Your task to perform on an android device: set default search engine in the chrome app Image 0: 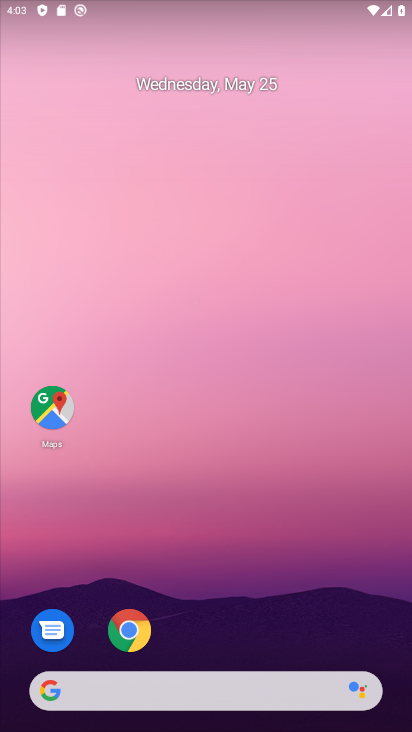
Step 0: click (140, 631)
Your task to perform on an android device: set default search engine in the chrome app Image 1: 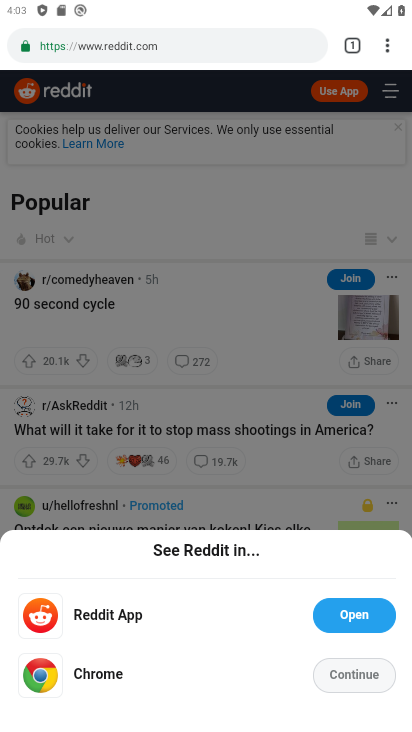
Step 1: drag from (386, 44) to (213, 509)
Your task to perform on an android device: set default search engine in the chrome app Image 2: 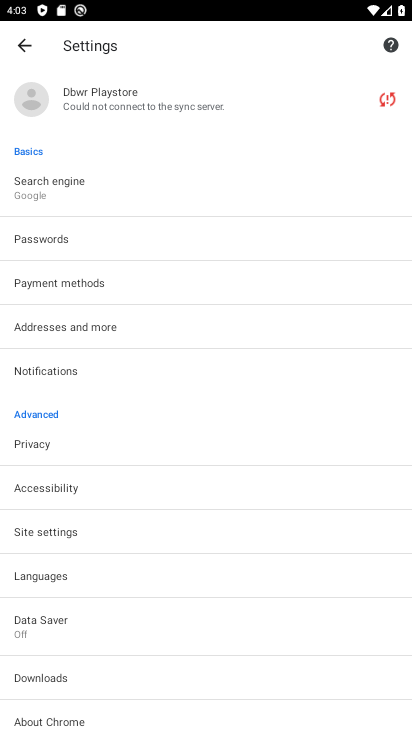
Step 2: click (59, 181)
Your task to perform on an android device: set default search engine in the chrome app Image 3: 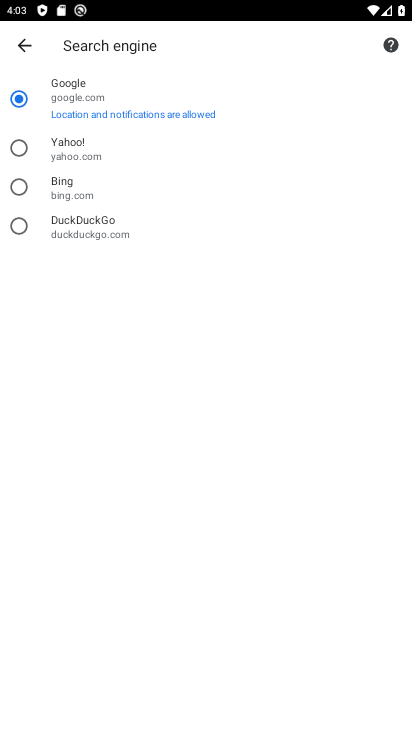
Step 3: click (42, 141)
Your task to perform on an android device: set default search engine in the chrome app Image 4: 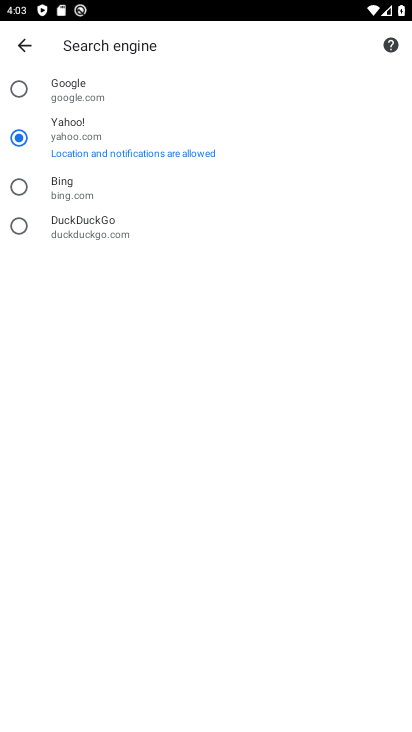
Step 4: task complete